Your task to perform on an android device: turn on the 12-hour format for clock Image 0: 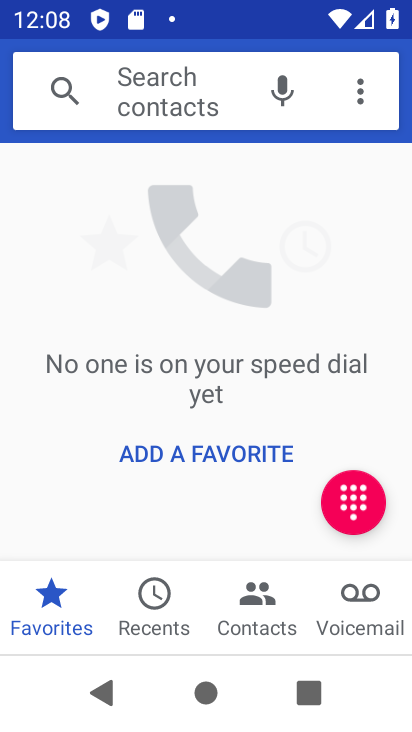
Step 0: press back button
Your task to perform on an android device: turn on the 12-hour format for clock Image 1: 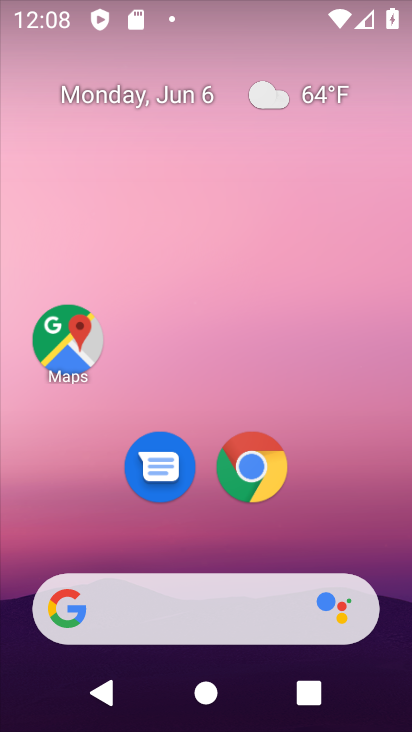
Step 1: drag from (395, 613) to (285, 168)
Your task to perform on an android device: turn on the 12-hour format for clock Image 2: 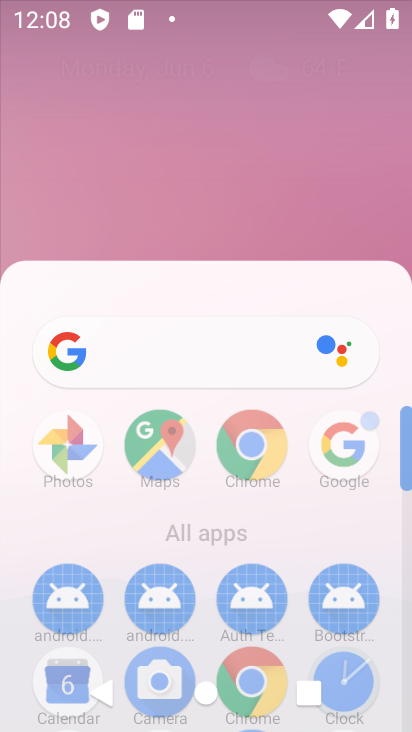
Step 2: click (233, 66)
Your task to perform on an android device: turn on the 12-hour format for clock Image 3: 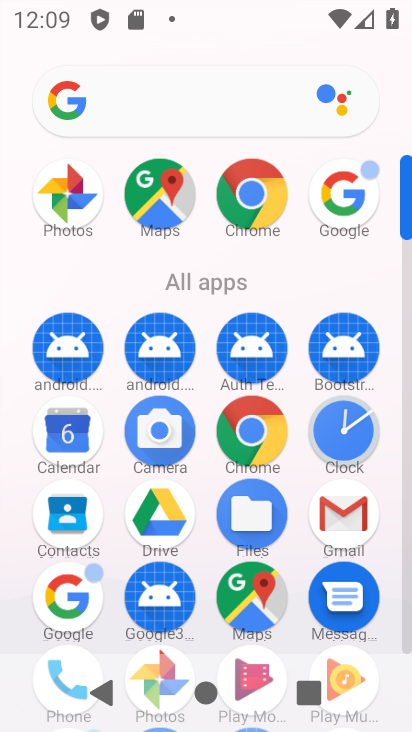
Step 3: click (351, 422)
Your task to perform on an android device: turn on the 12-hour format for clock Image 4: 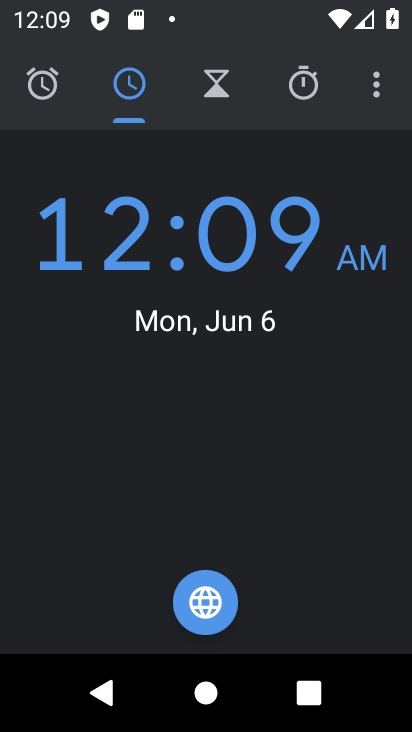
Step 4: click (374, 75)
Your task to perform on an android device: turn on the 12-hour format for clock Image 5: 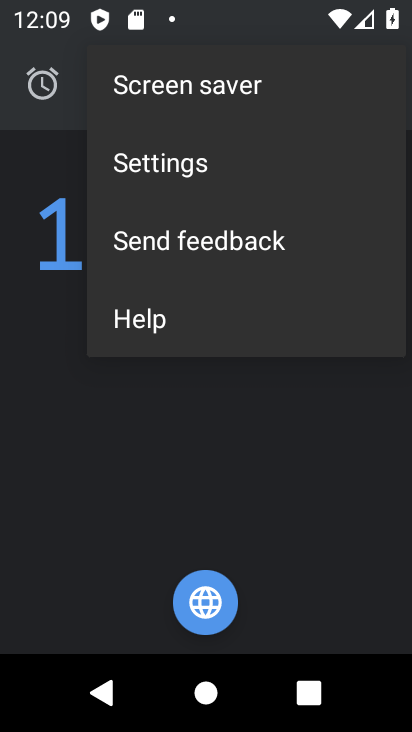
Step 5: click (229, 164)
Your task to perform on an android device: turn on the 12-hour format for clock Image 6: 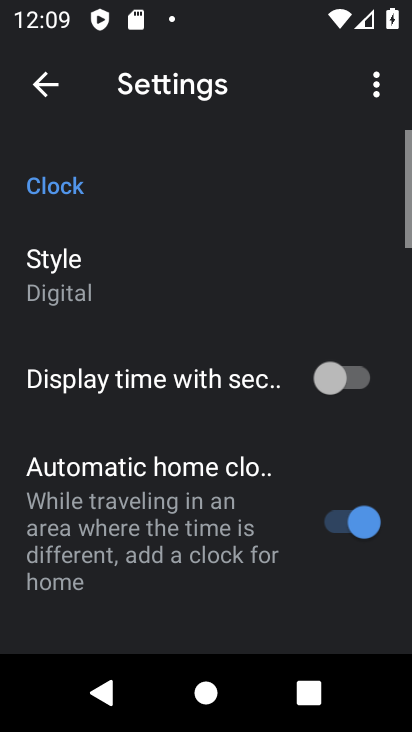
Step 6: drag from (199, 637) to (199, 198)
Your task to perform on an android device: turn on the 12-hour format for clock Image 7: 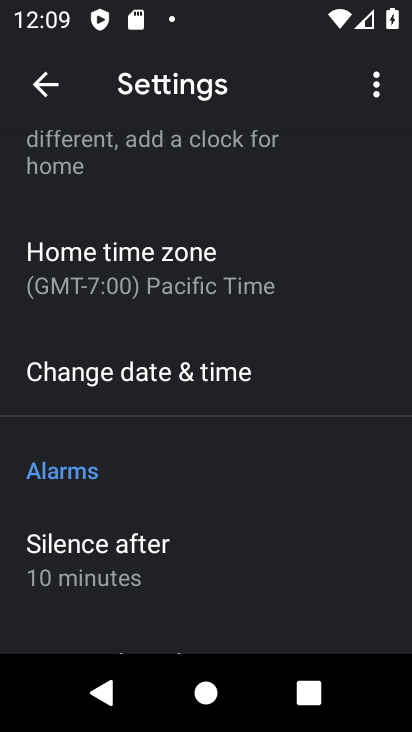
Step 7: click (170, 387)
Your task to perform on an android device: turn on the 12-hour format for clock Image 8: 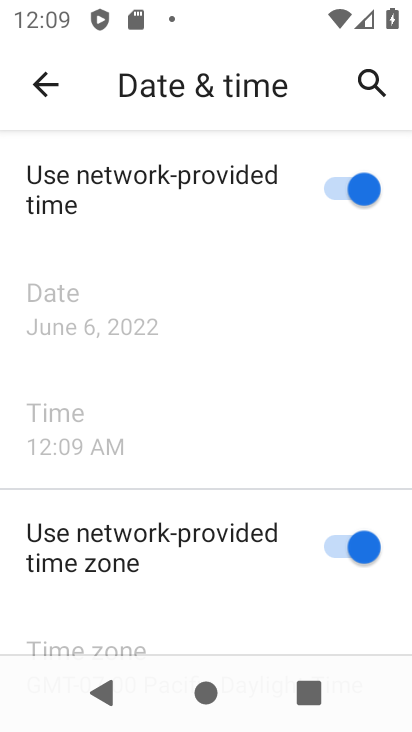
Step 8: task complete